Your task to perform on an android device: turn off priority inbox in the gmail app Image 0: 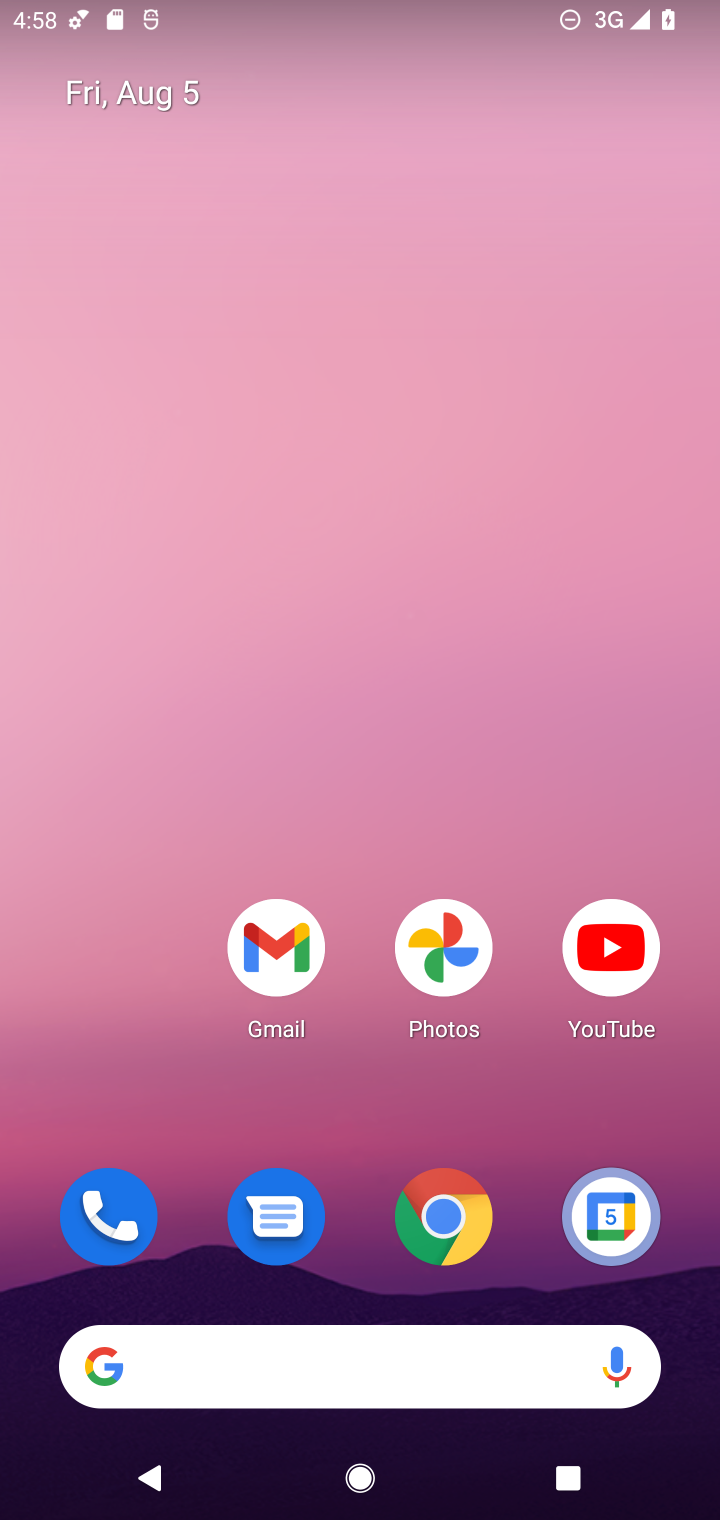
Step 0: click (290, 953)
Your task to perform on an android device: turn off priority inbox in the gmail app Image 1: 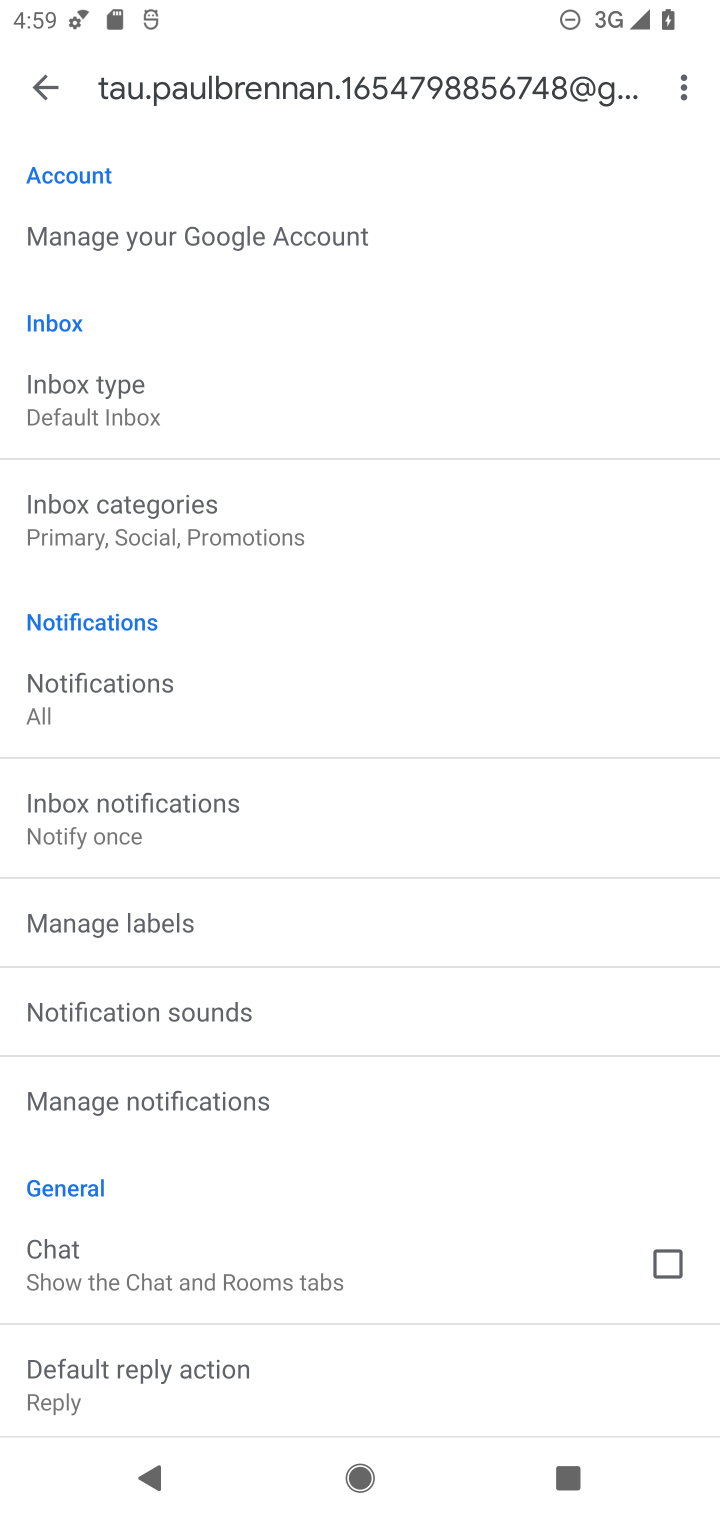
Step 1: click (59, 406)
Your task to perform on an android device: turn off priority inbox in the gmail app Image 2: 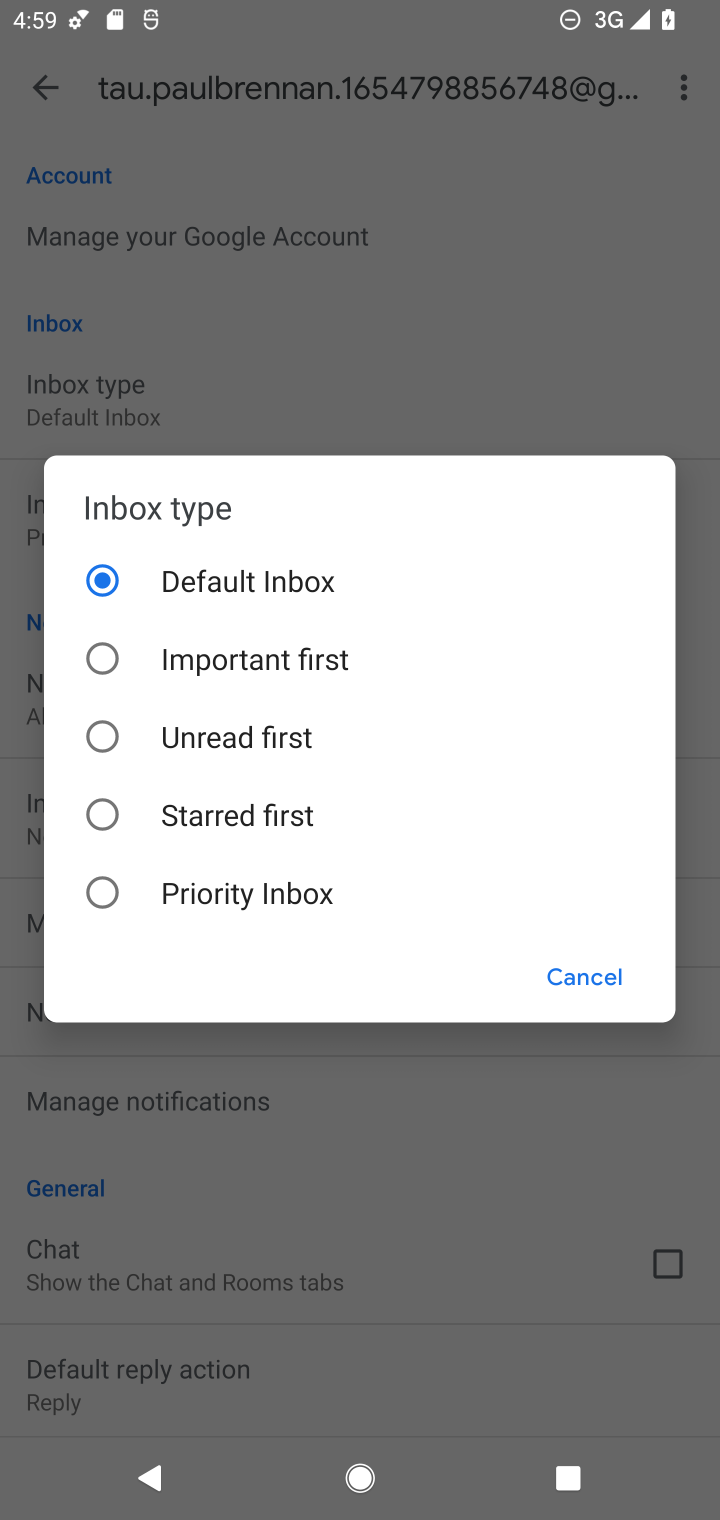
Step 2: click (233, 594)
Your task to perform on an android device: turn off priority inbox in the gmail app Image 3: 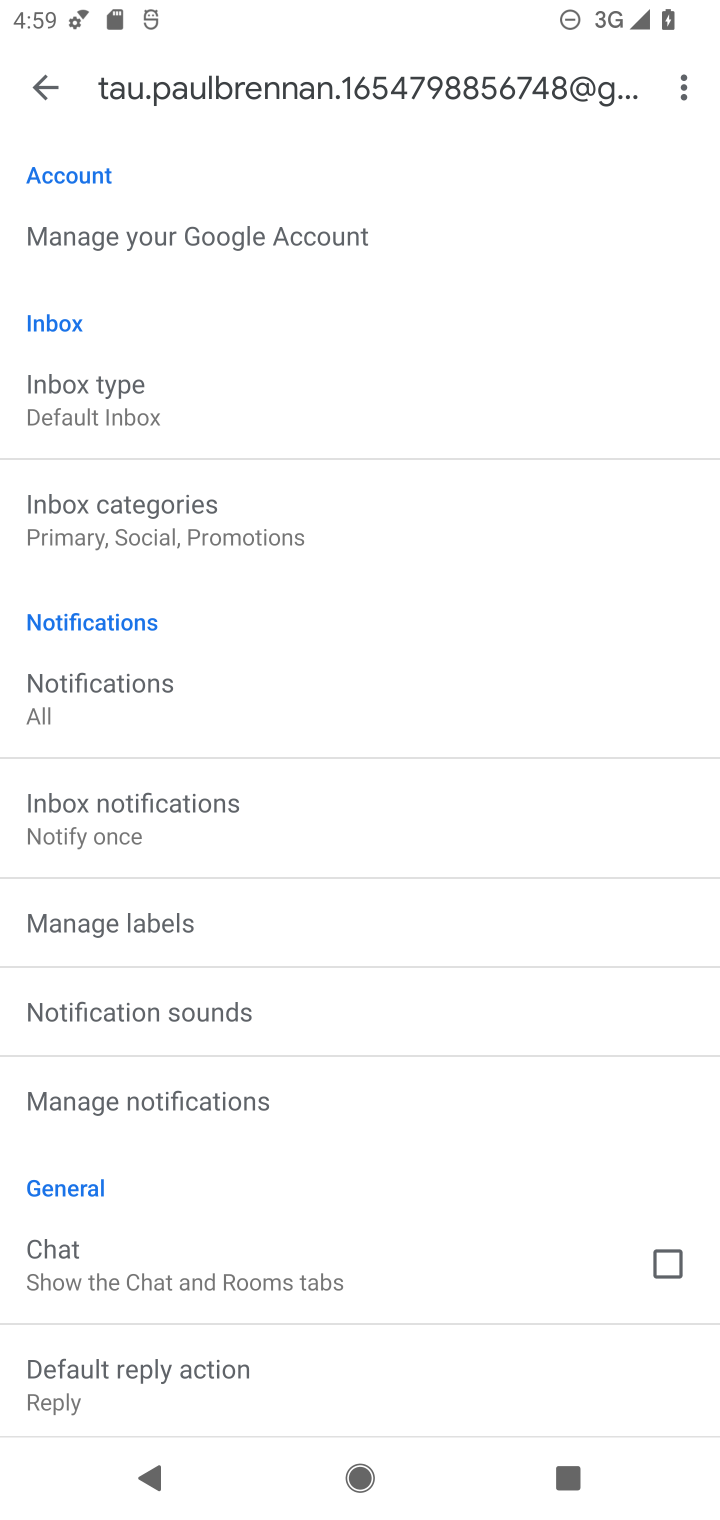
Step 3: task complete